Your task to perform on an android device: change alarm snooze length Image 0: 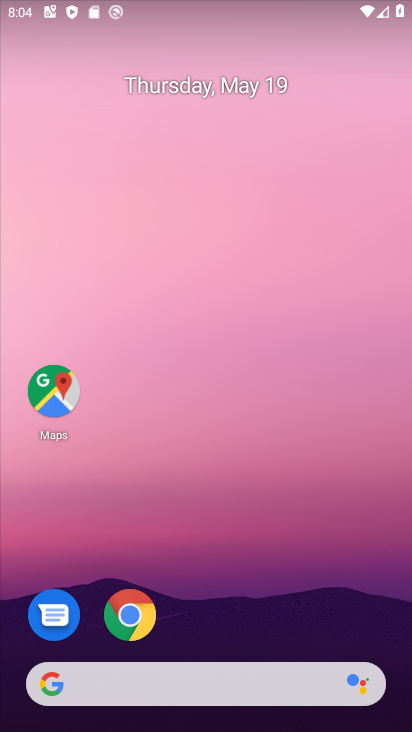
Step 0: drag from (209, 582) to (261, 85)
Your task to perform on an android device: change alarm snooze length Image 1: 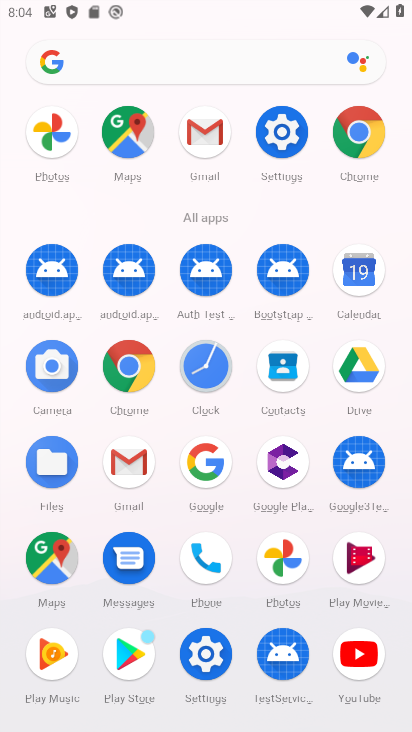
Step 1: click (214, 370)
Your task to perform on an android device: change alarm snooze length Image 2: 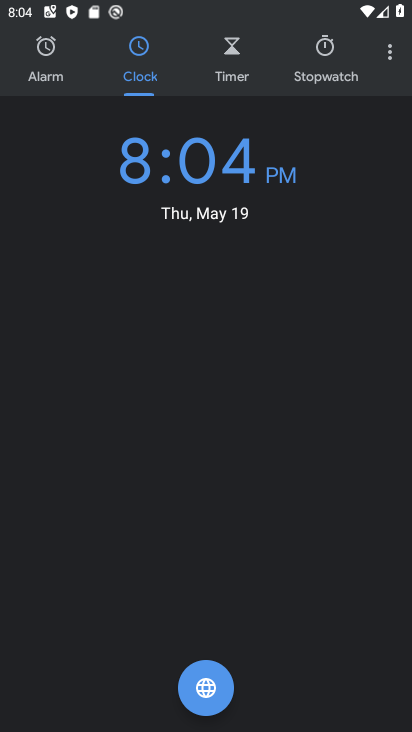
Step 2: click (381, 49)
Your task to perform on an android device: change alarm snooze length Image 3: 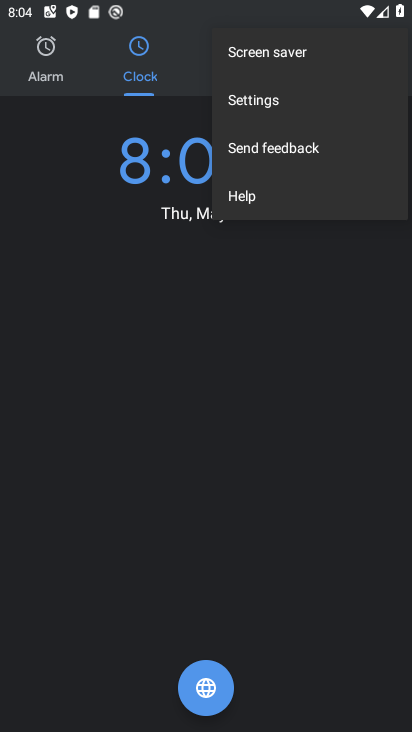
Step 3: click (271, 95)
Your task to perform on an android device: change alarm snooze length Image 4: 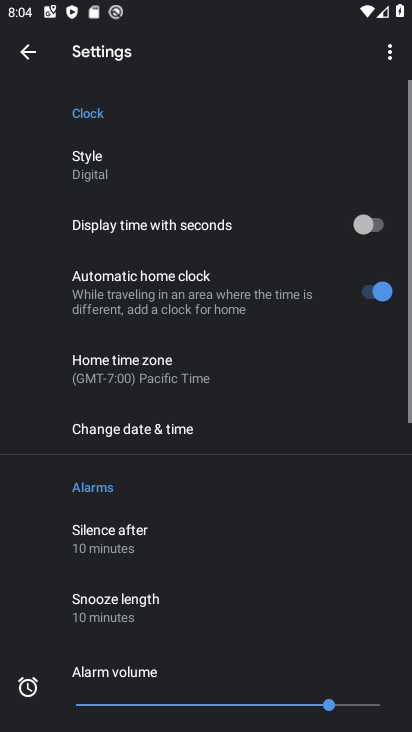
Step 4: click (123, 603)
Your task to perform on an android device: change alarm snooze length Image 5: 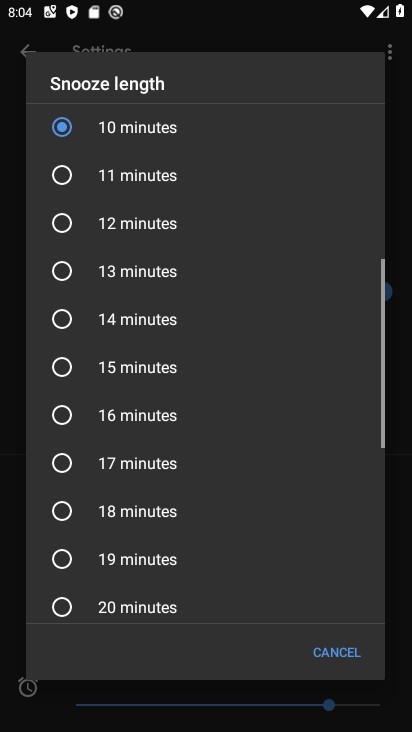
Step 5: click (56, 176)
Your task to perform on an android device: change alarm snooze length Image 6: 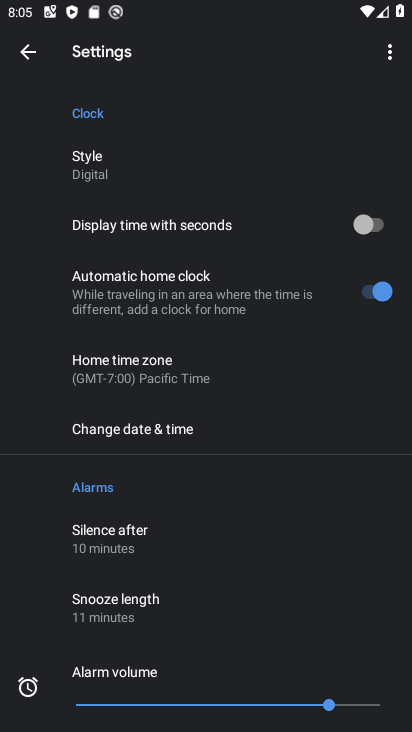
Step 6: task complete